Your task to perform on an android device: When is my next appointment? Image 0: 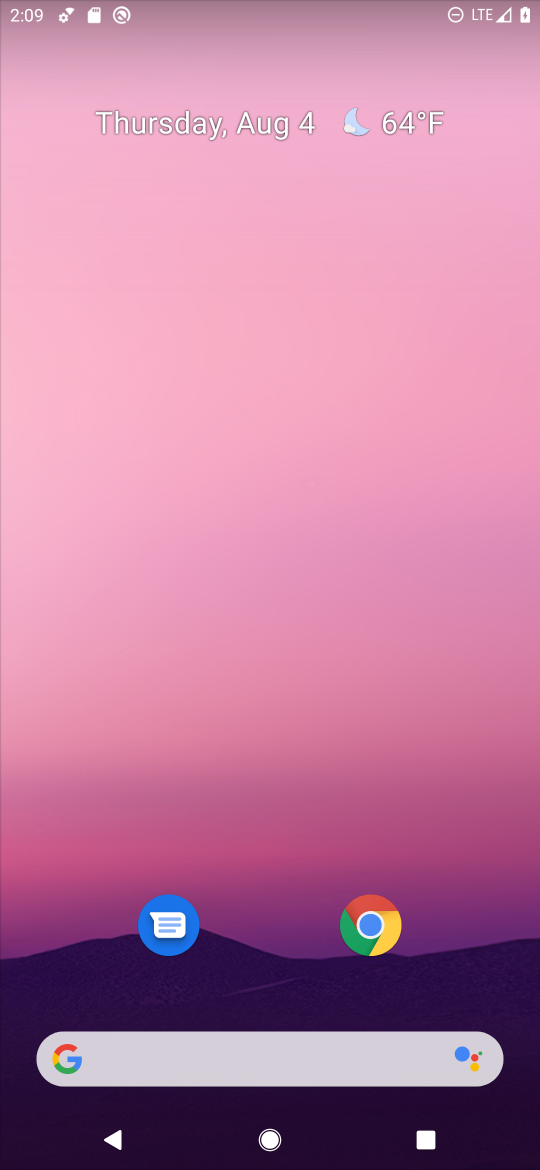
Step 0: drag from (262, 929) to (231, 179)
Your task to perform on an android device: When is my next appointment? Image 1: 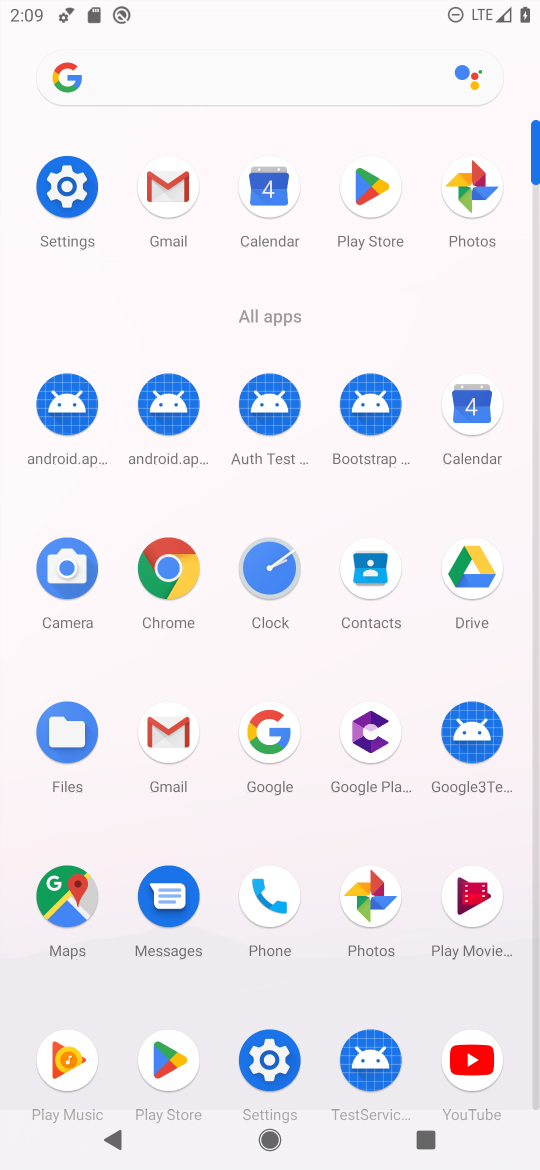
Step 1: click (472, 429)
Your task to perform on an android device: When is my next appointment? Image 2: 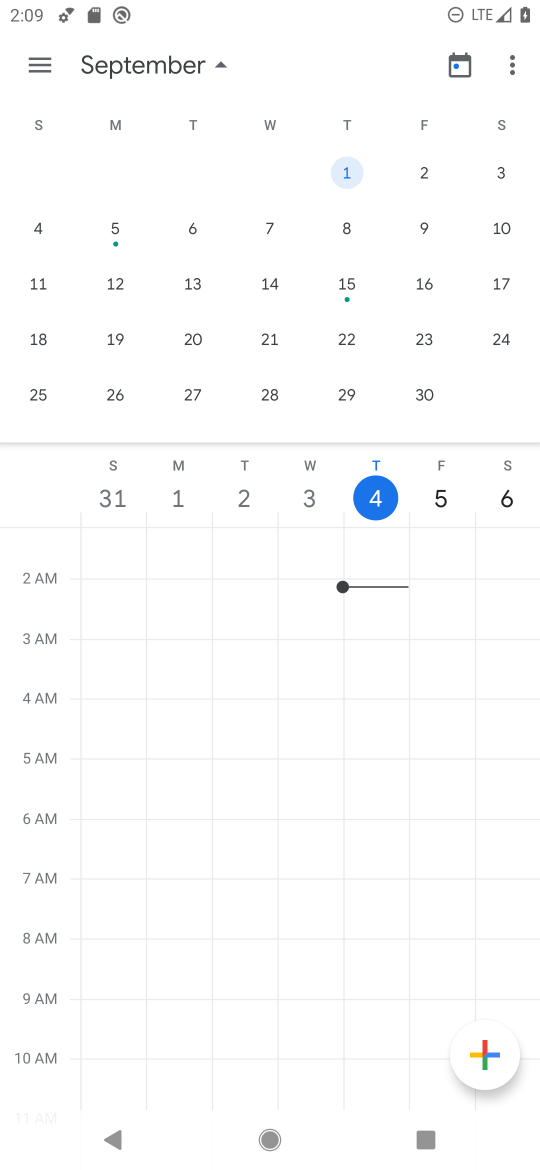
Step 2: click (515, 56)
Your task to perform on an android device: When is my next appointment? Image 3: 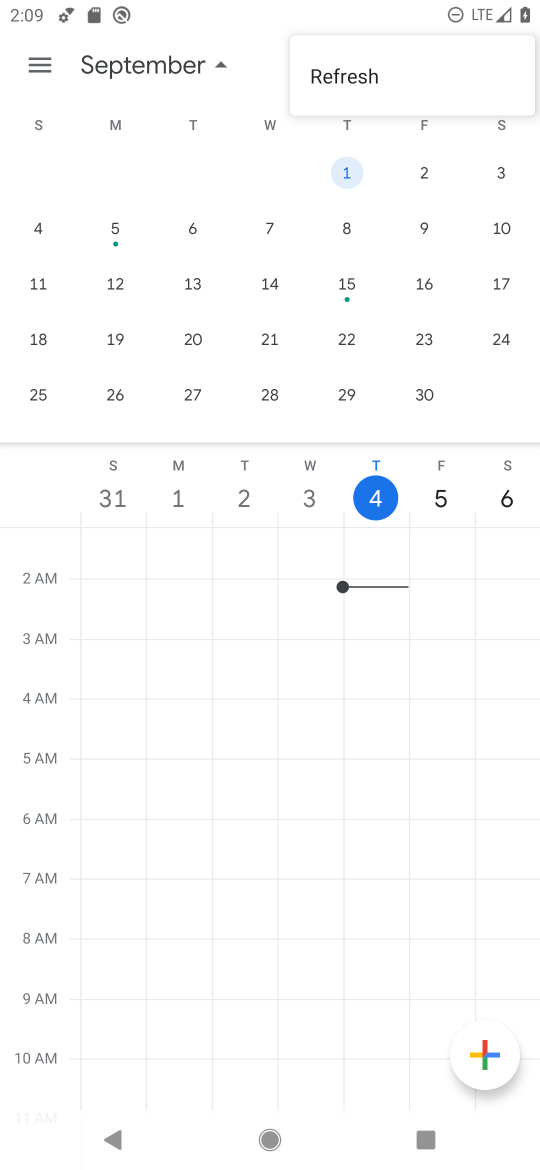
Step 3: click (266, 67)
Your task to perform on an android device: When is my next appointment? Image 4: 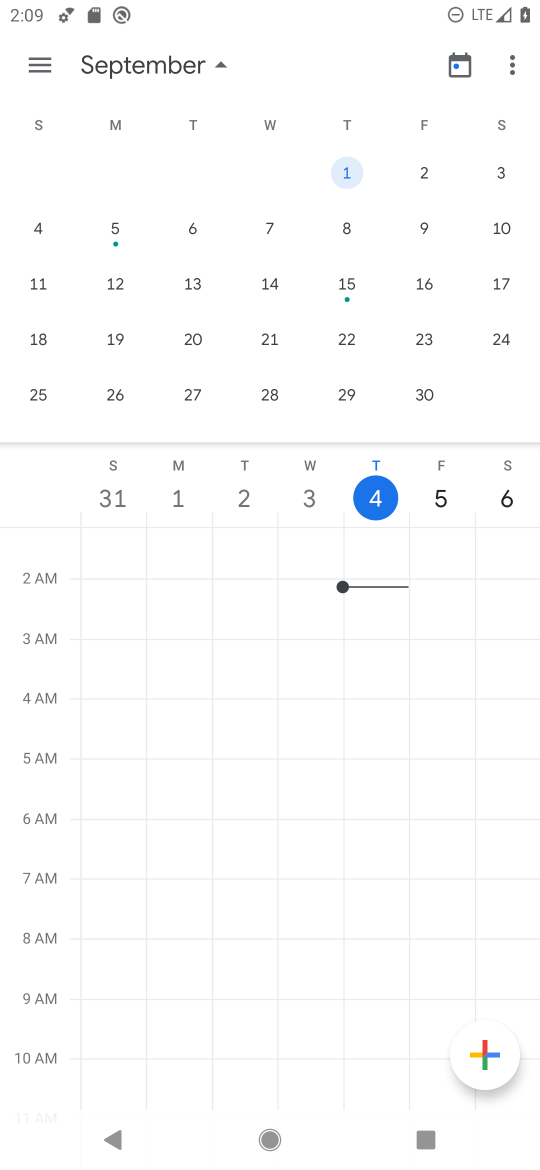
Step 4: click (42, 65)
Your task to perform on an android device: When is my next appointment? Image 5: 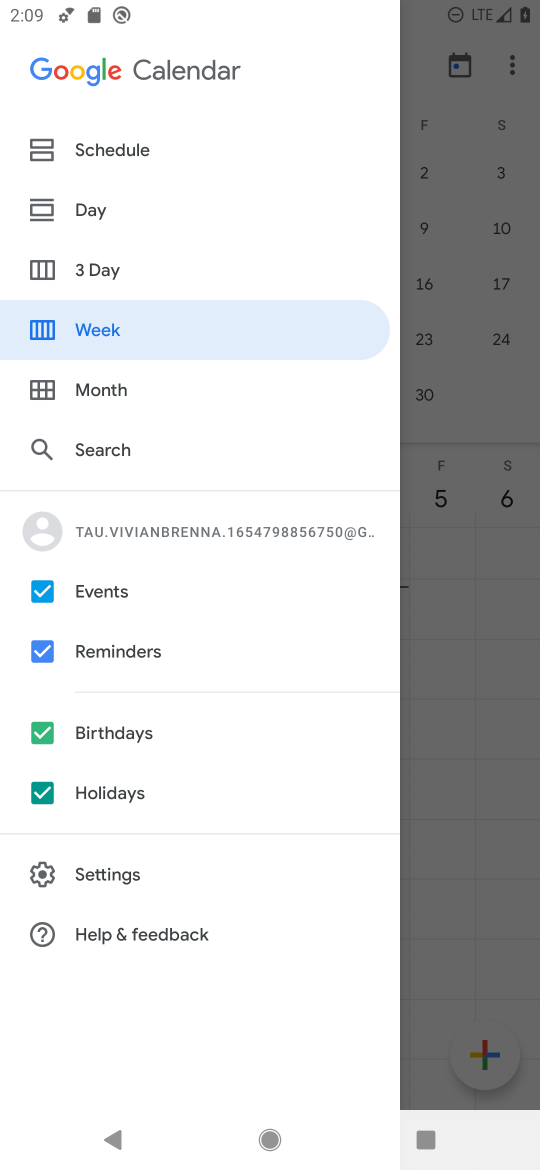
Step 5: click (108, 870)
Your task to perform on an android device: When is my next appointment? Image 6: 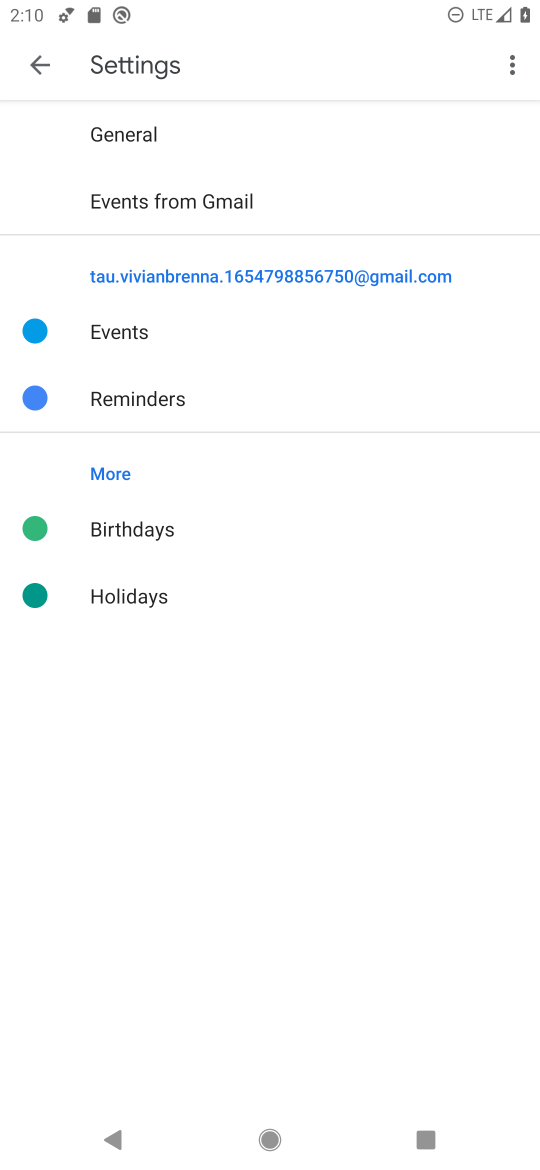
Step 6: click (129, 132)
Your task to perform on an android device: When is my next appointment? Image 7: 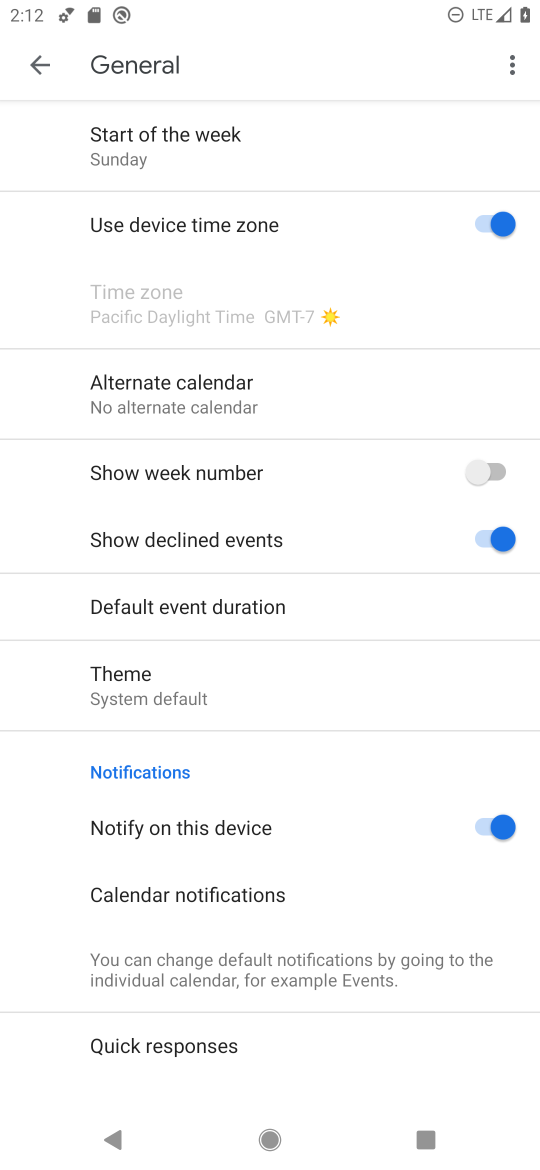
Step 7: task complete